Your task to perform on an android device: Open calendar and show me the first week of next month Image 0: 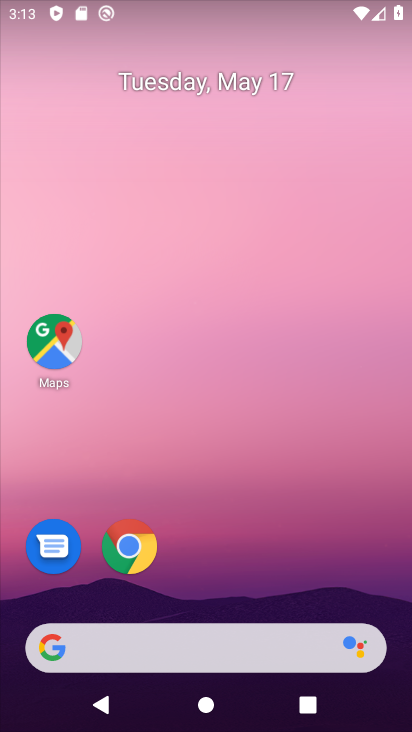
Step 0: drag from (305, 513) to (334, 146)
Your task to perform on an android device: Open calendar and show me the first week of next month Image 1: 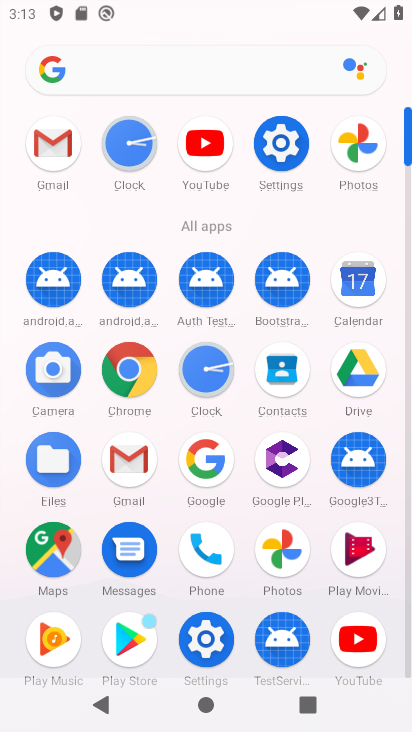
Step 1: click (361, 286)
Your task to perform on an android device: Open calendar and show me the first week of next month Image 2: 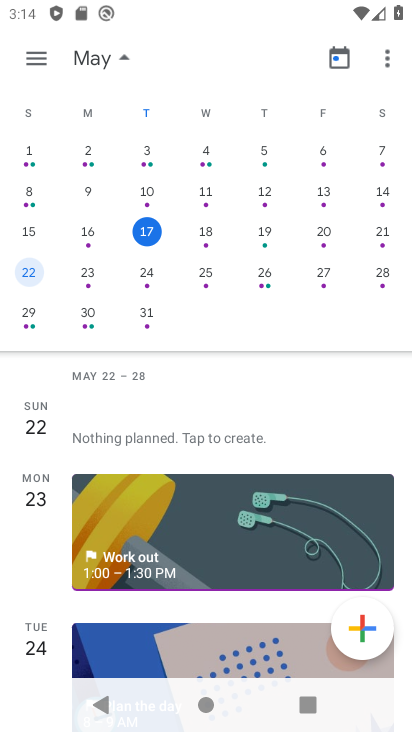
Step 2: drag from (401, 239) to (14, 248)
Your task to perform on an android device: Open calendar and show me the first week of next month Image 3: 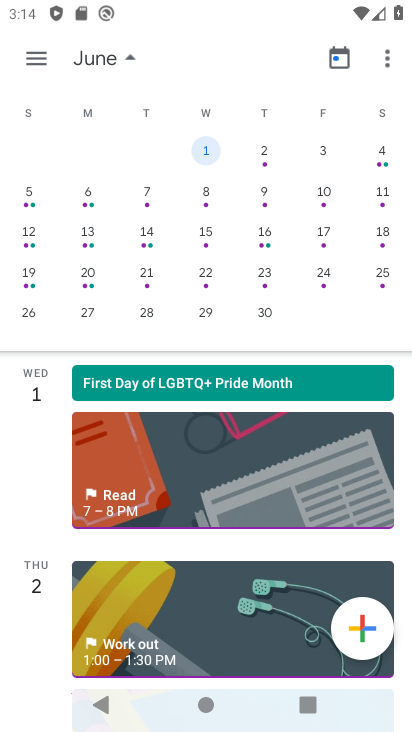
Step 3: drag from (395, 262) to (177, 245)
Your task to perform on an android device: Open calendar and show me the first week of next month Image 4: 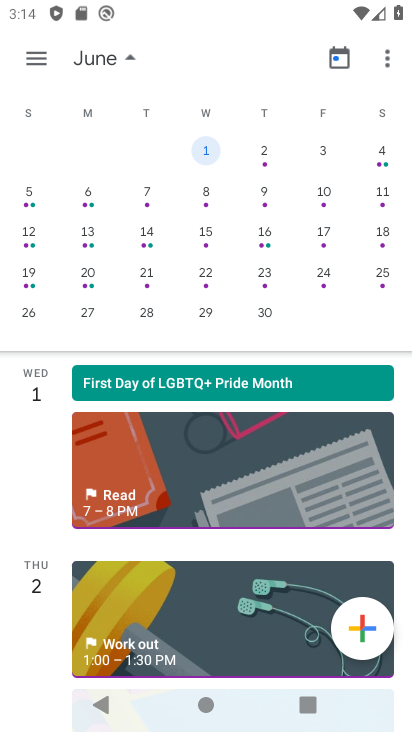
Step 4: click (36, 67)
Your task to perform on an android device: Open calendar and show me the first week of next month Image 5: 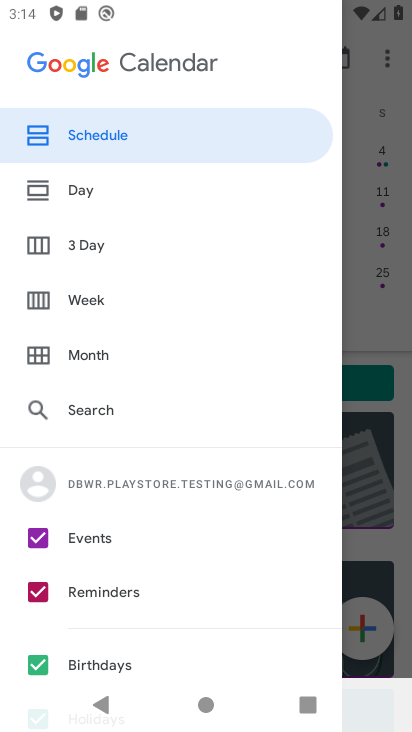
Step 5: click (95, 302)
Your task to perform on an android device: Open calendar and show me the first week of next month Image 6: 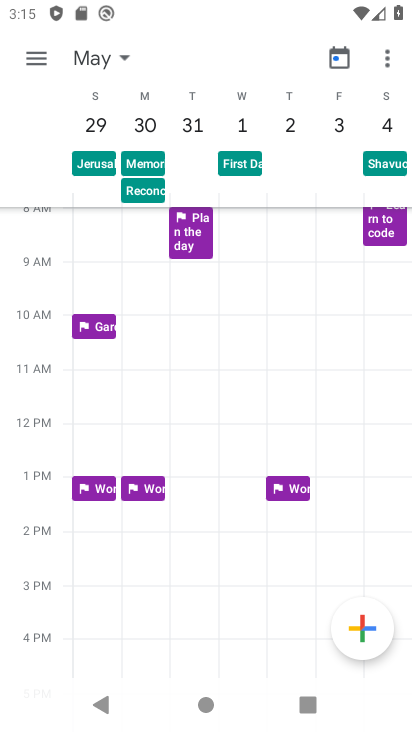
Step 6: task complete